Your task to perform on an android device: turn off location Image 0: 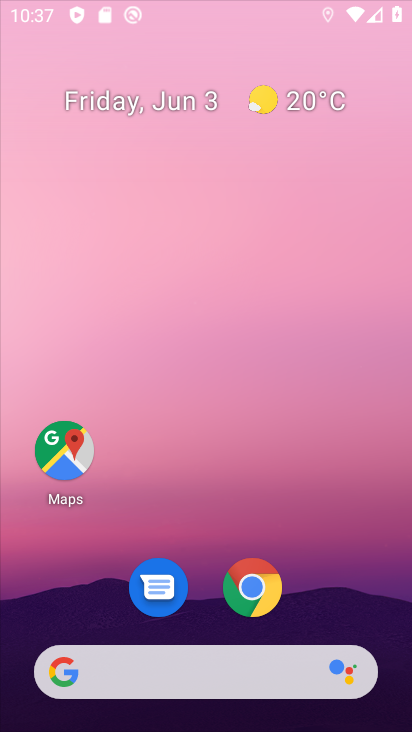
Step 0: press home button
Your task to perform on an android device: turn off location Image 1: 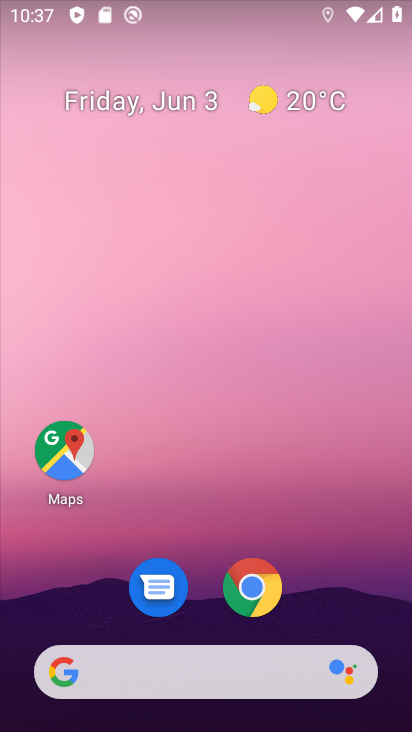
Step 1: drag from (315, 529) to (178, 112)
Your task to perform on an android device: turn off location Image 2: 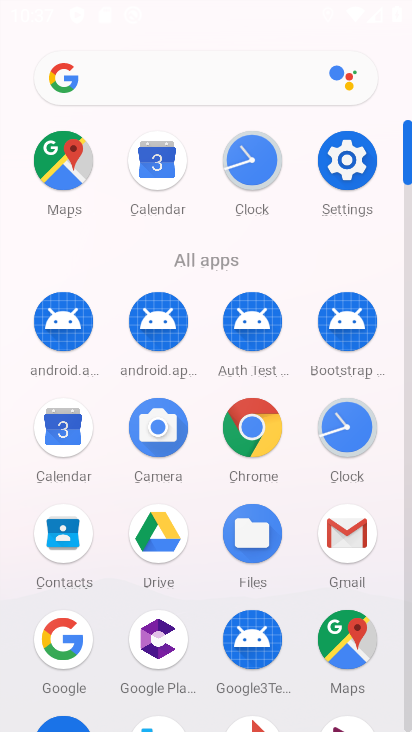
Step 2: click (352, 155)
Your task to perform on an android device: turn off location Image 3: 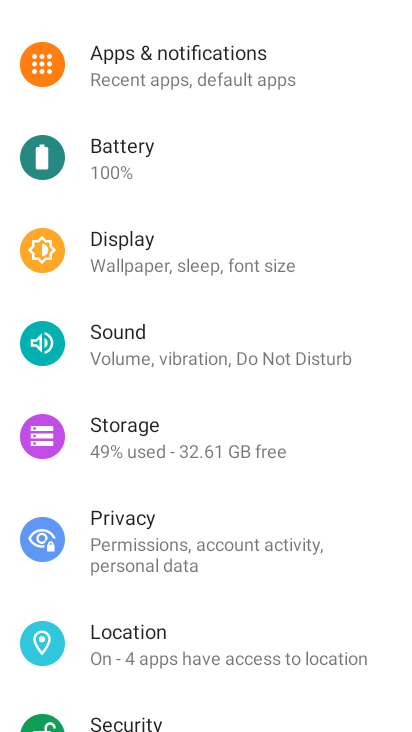
Step 3: drag from (257, 584) to (258, 309)
Your task to perform on an android device: turn off location Image 4: 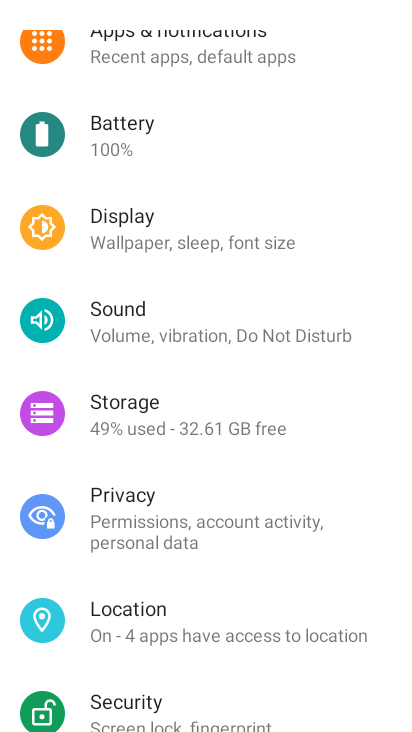
Step 4: click (191, 592)
Your task to perform on an android device: turn off location Image 5: 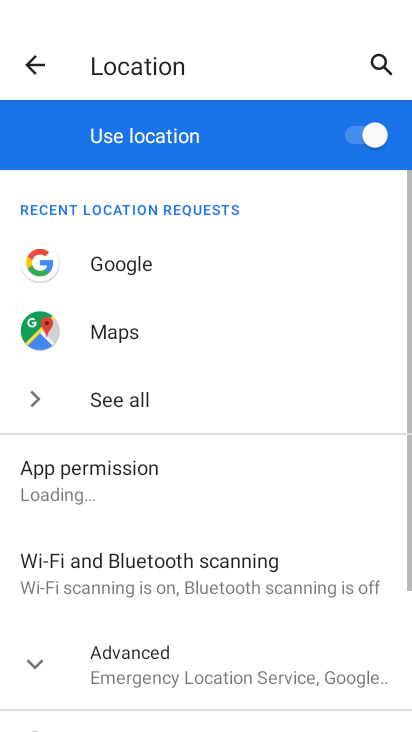
Step 5: click (360, 124)
Your task to perform on an android device: turn off location Image 6: 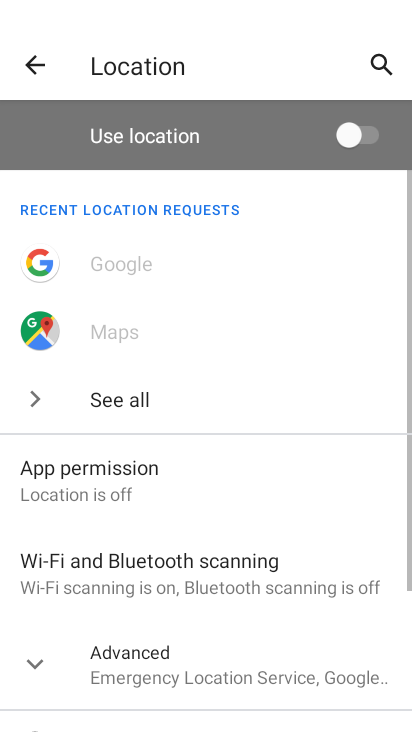
Step 6: task complete